Your task to perform on an android device: What is the news today? Image 0: 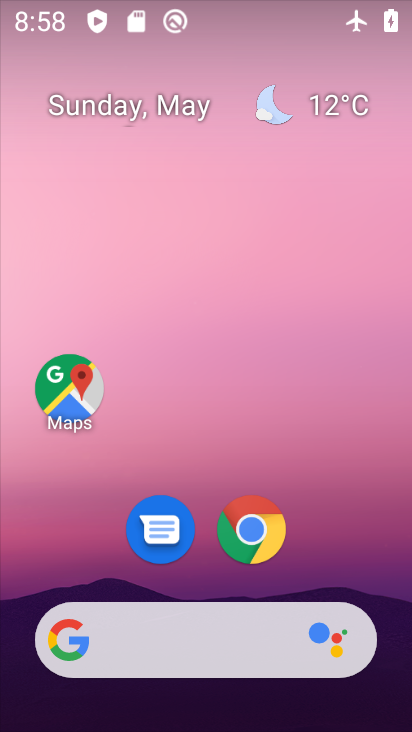
Step 0: drag from (323, 537) to (231, 48)
Your task to perform on an android device: What is the news today? Image 1: 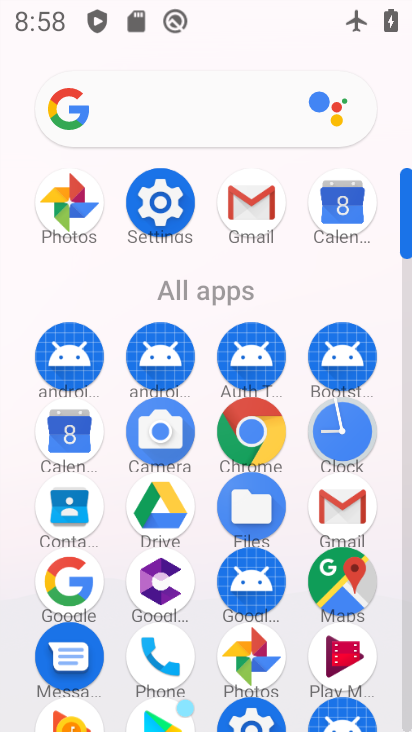
Step 1: click (74, 590)
Your task to perform on an android device: What is the news today? Image 2: 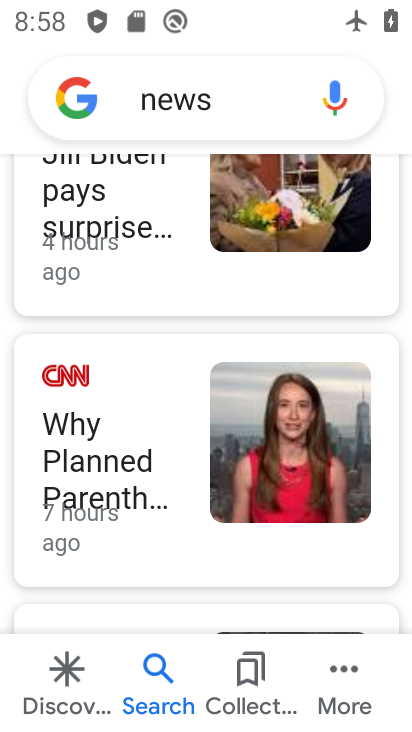
Step 2: task complete